Your task to perform on an android device: Go to Android settings Image 0: 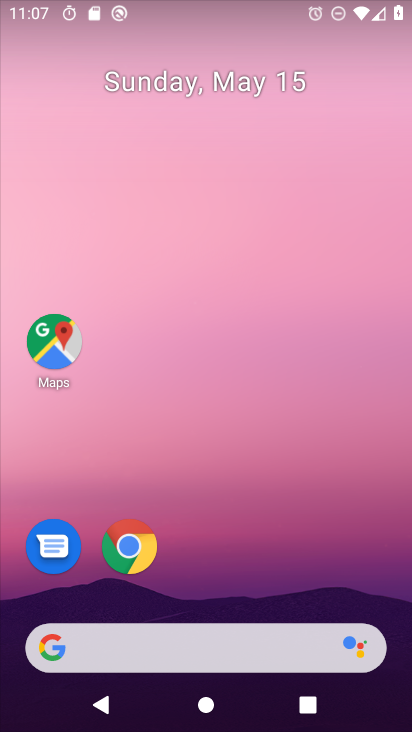
Step 0: drag from (269, 552) to (294, 42)
Your task to perform on an android device: Go to Android settings Image 1: 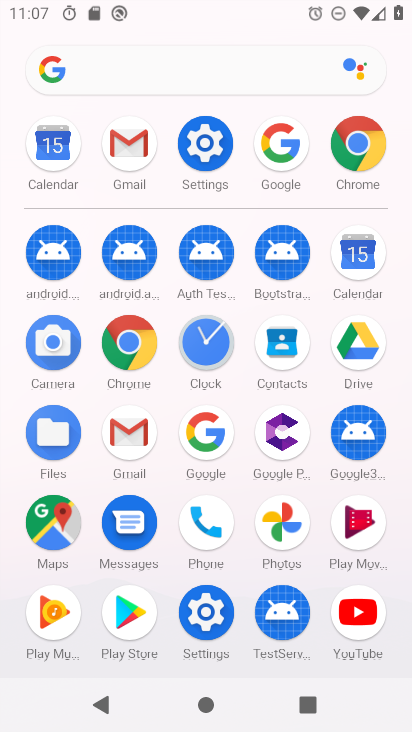
Step 1: click (201, 122)
Your task to perform on an android device: Go to Android settings Image 2: 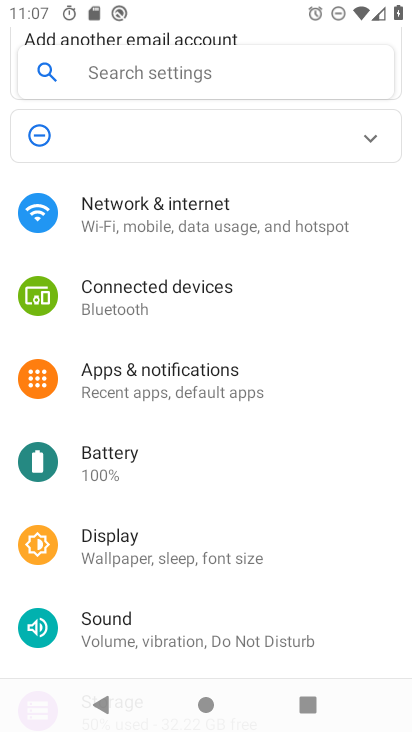
Step 2: task complete